Your task to perform on an android device: Open Google Chrome and open the bookmarks view Image 0: 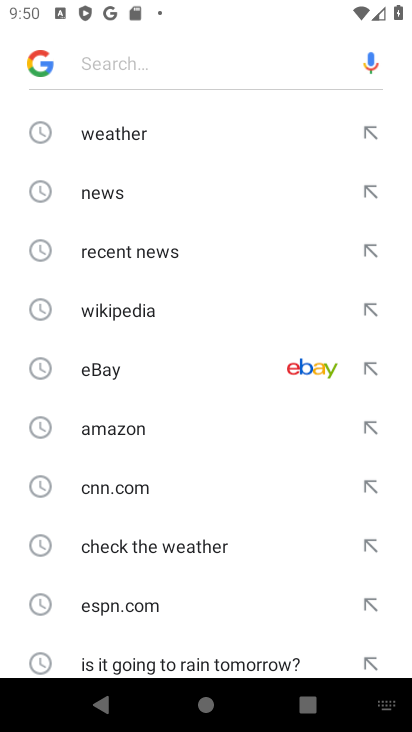
Step 0: press home button
Your task to perform on an android device: Open Google Chrome and open the bookmarks view Image 1: 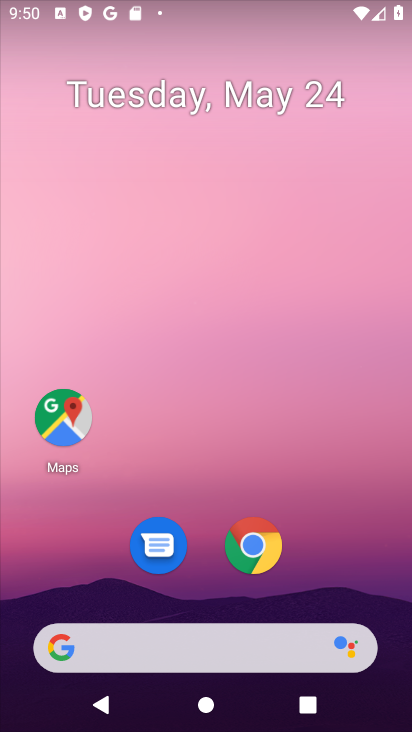
Step 1: click (257, 553)
Your task to perform on an android device: Open Google Chrome and open the bookmarks view Image 2: 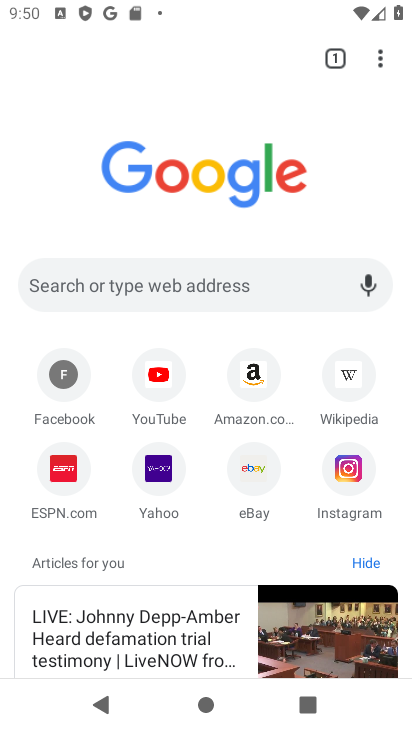
Step 2: click (377, 58)
Your task to perform on an android device: Open Google Chrome and open the bookmarks view Image 3: 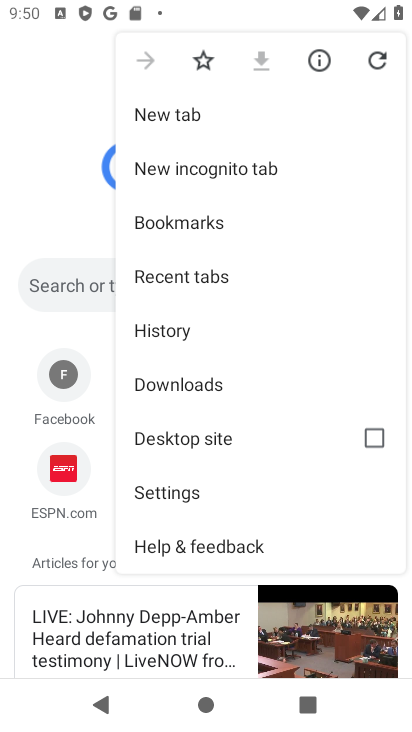
Step 3: click (219, 220)
Your task to perform on an android device: Open Google Chrome and open the bookmarks view Image 4: 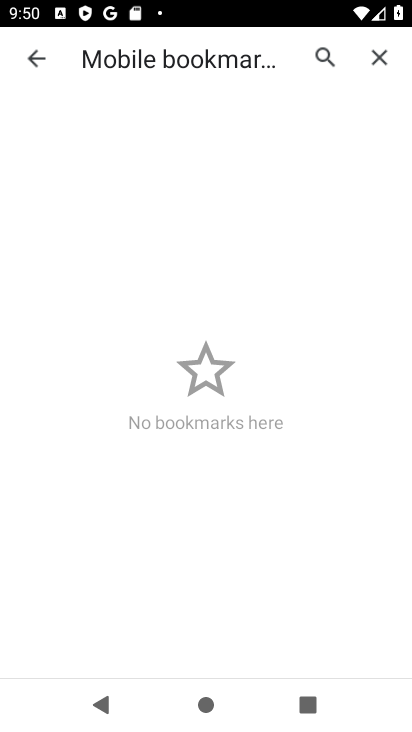
Step 4: task complete